Your task to perform on an android device: Open Amazon Image 0: 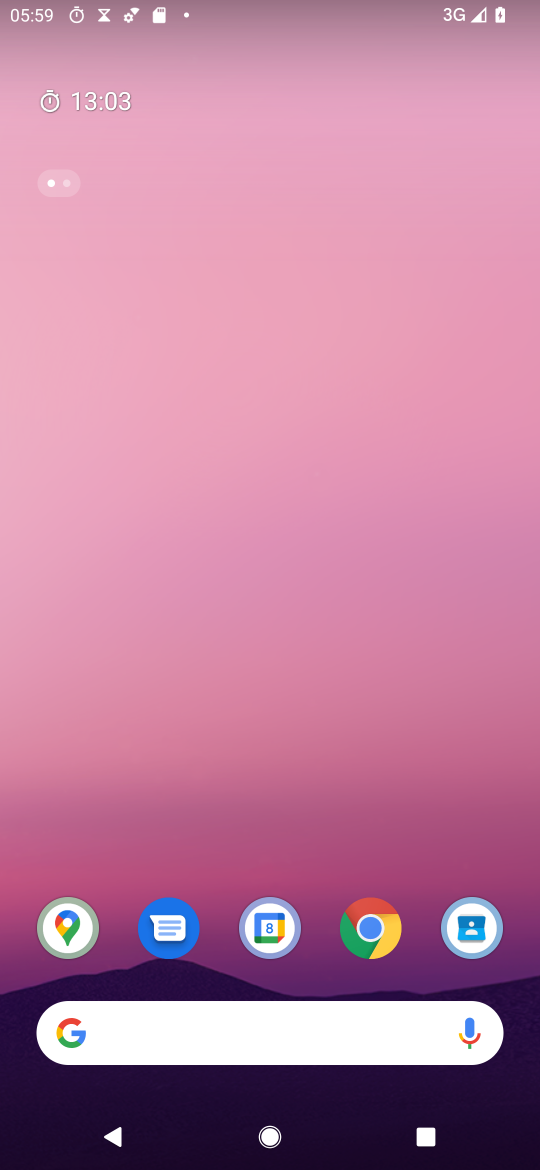
Step 0: click (365, 922)
Your task to perform on an android device: Open Amazon Image 1: 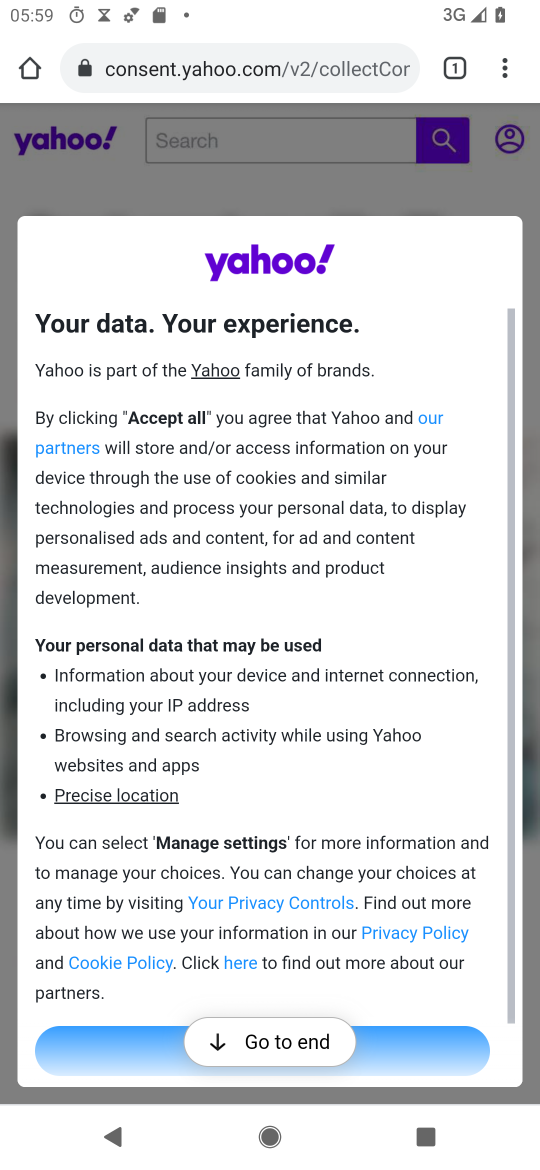
Step 1: click (221, 50)
Your task to perform on an android device: Open Amazon Image 2: 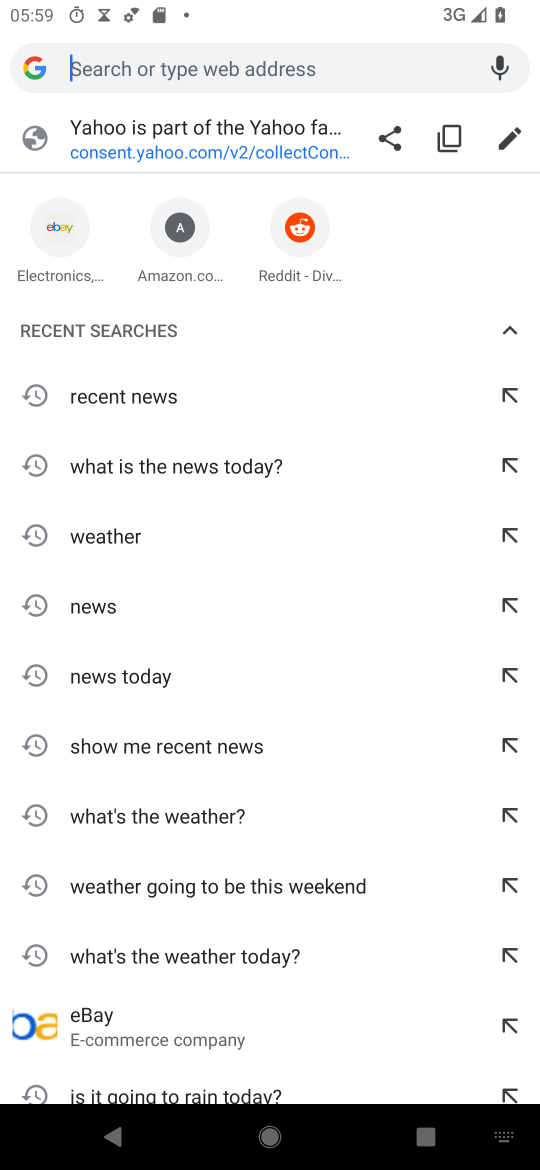
Step 2: type "Amazon"
Your task to perform on an android device: Open Amazon Image 3: 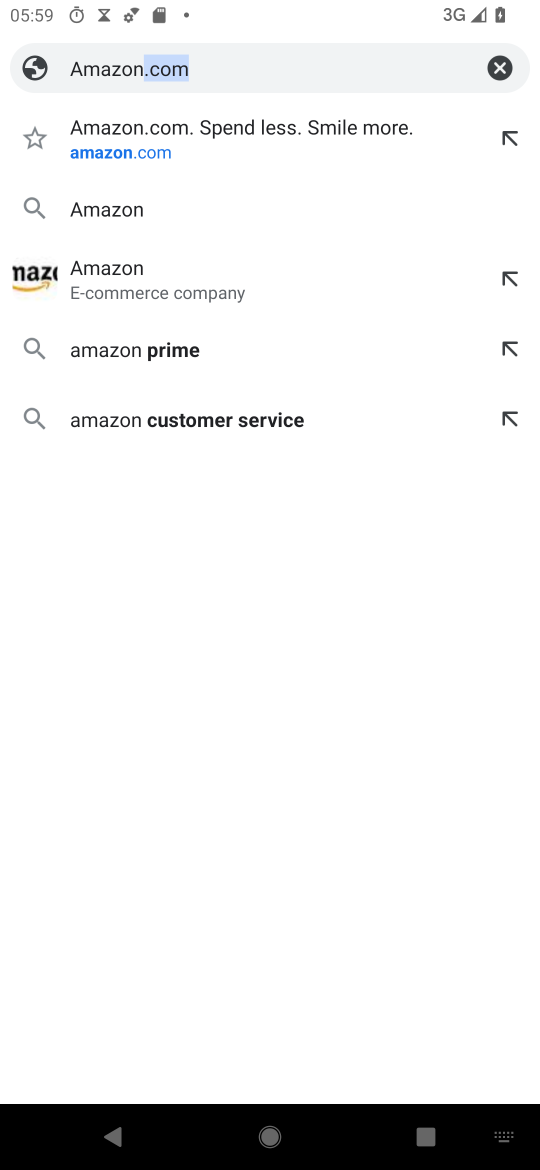
Step 3: click (277, 127)
Your task to perform on an android device: Open Amazon Image 4: 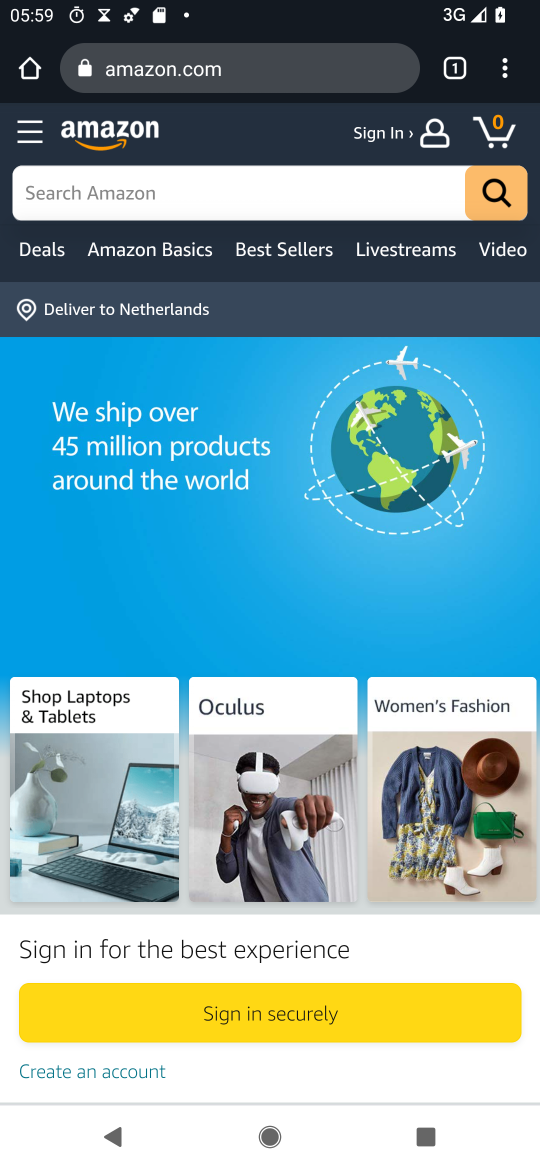
Step 4: task complete